Your task to perform on an android device: Go to privacy settings Image 0: 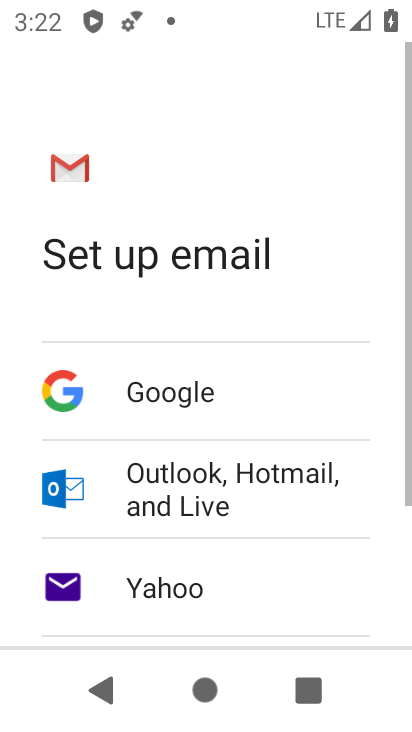
Step 0: press back button
Your task to perform on an android device: Go to privacy settings Image 1: 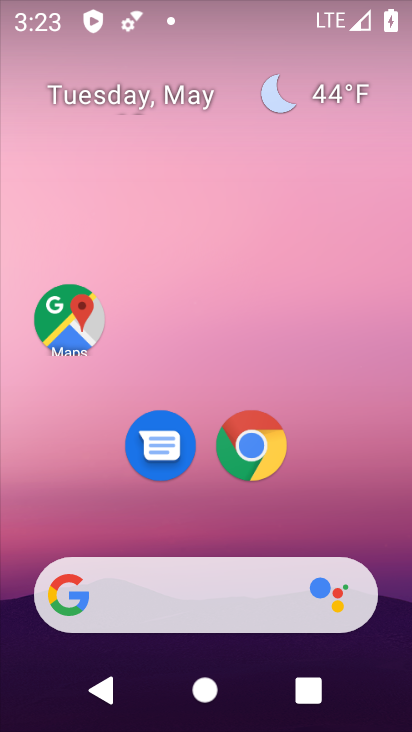
Step 1: drag from (150, 383) to (225, 70)
Your task to perform on an android device: Go to privacy settings Image 2: 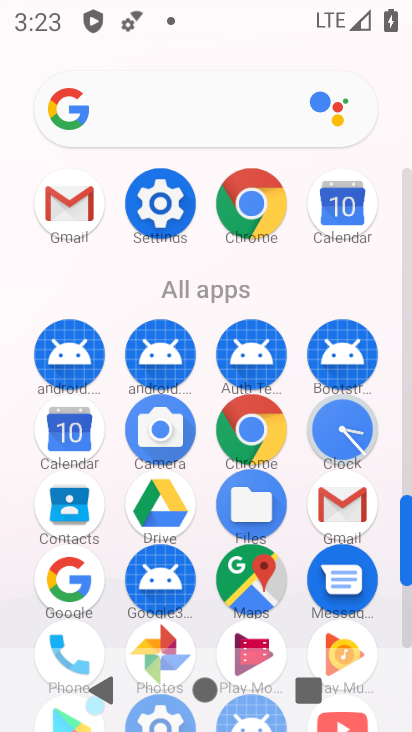
Step 2: click (166, 203)
Your task to perform on an android device: Go to privacy settings Image 3: 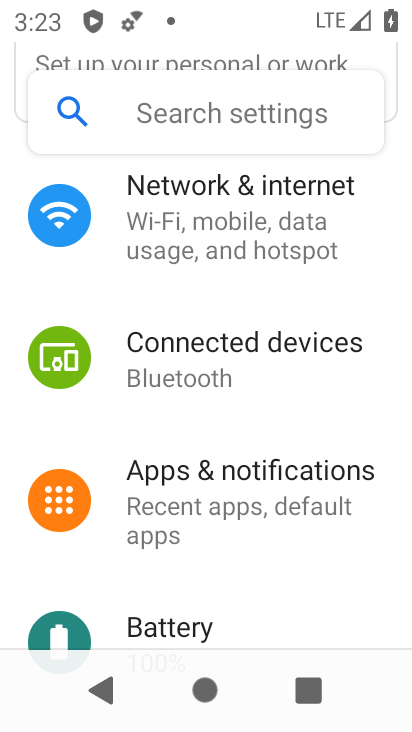
Step 3: drag from (233, 633) to (300, 136)
Your task to perform on an android device: Go to privacy settings Image 4: 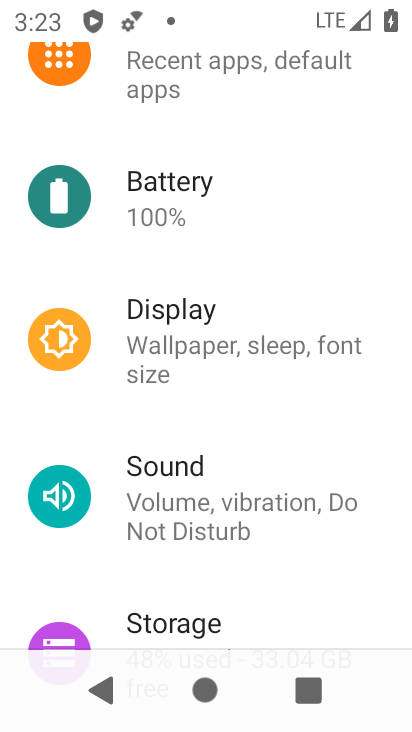
Step 4: drag from (188, 586) to (289, 83)
Your task to perform on an android device: Go to privacy settings Image 5: 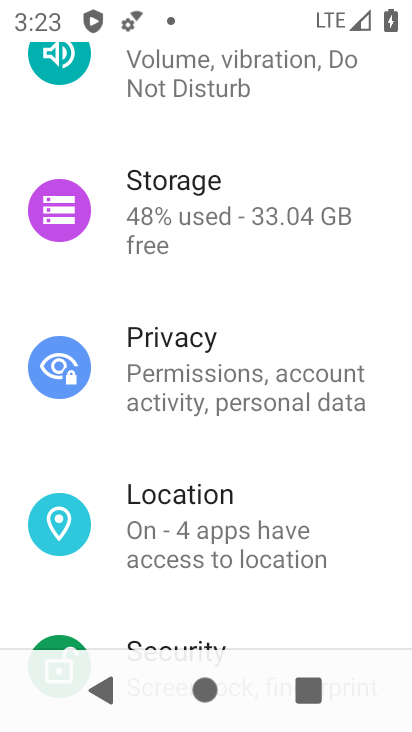
Step 5: click (167, 400)
Your task to perform on an android device: Go to privacy settings Image 6: 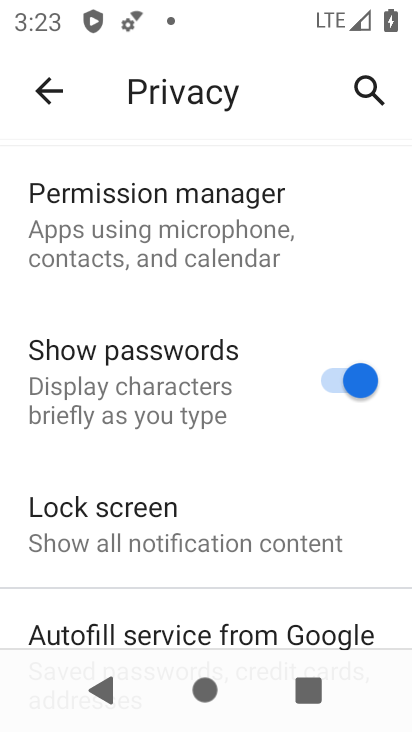
Step 6: task complete